Your task to perform on an android device: Open Google Image 0: 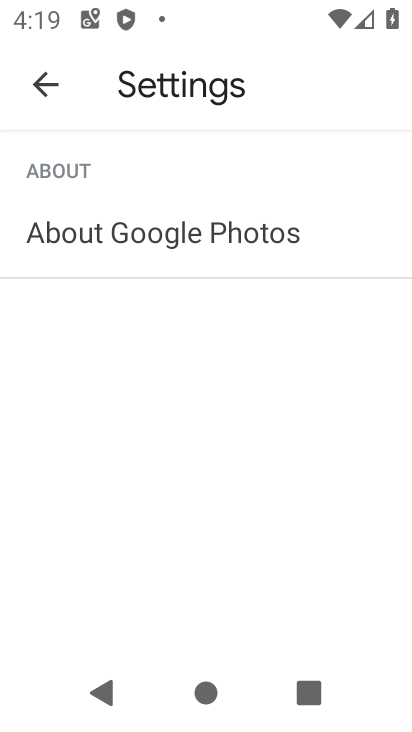
Step 0: press home button
Your task to perform on an android device: Open Google Image 1: 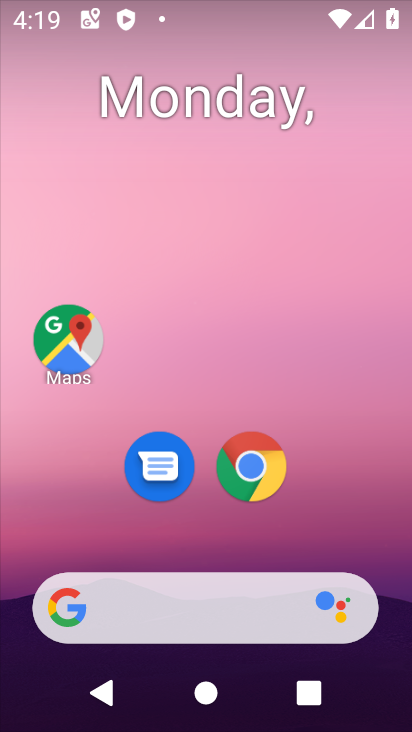
Step 1: drag from (371, 463) to (267, 2)
Your task to perform on an android device: Open Google Image 2: 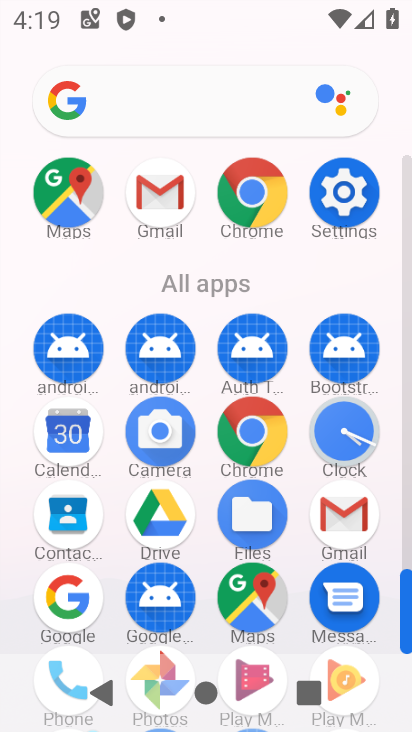
Step 2: click (63, 597)
Your task to perform on an android device: Open Google Image 3: 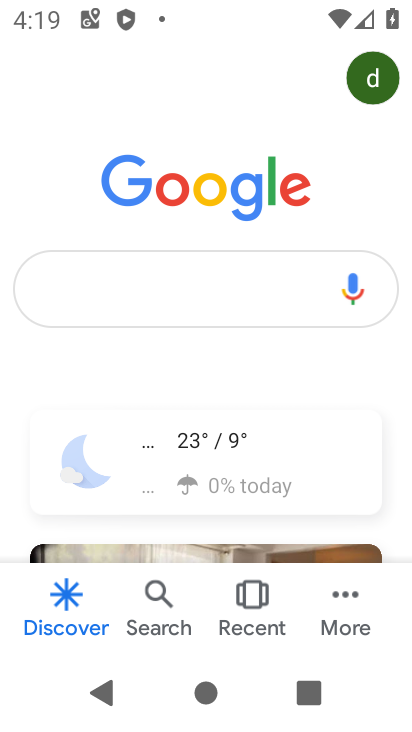
Step 3: task complete